Your task to perform on an android device: turn off location history Image 0: 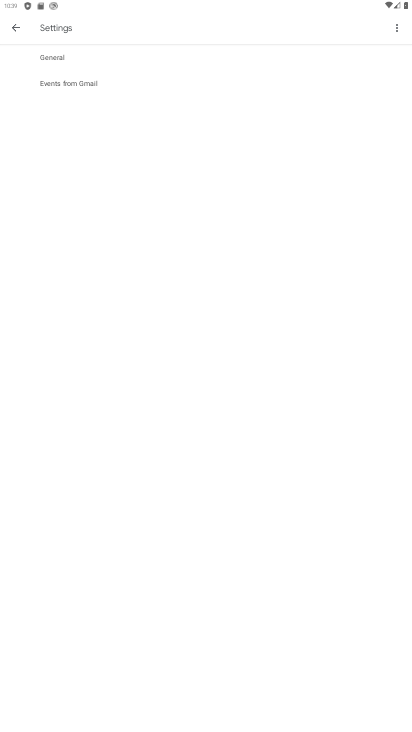
Step 0: press home button
Your task to perform on an android device: turn off location history Image 1: 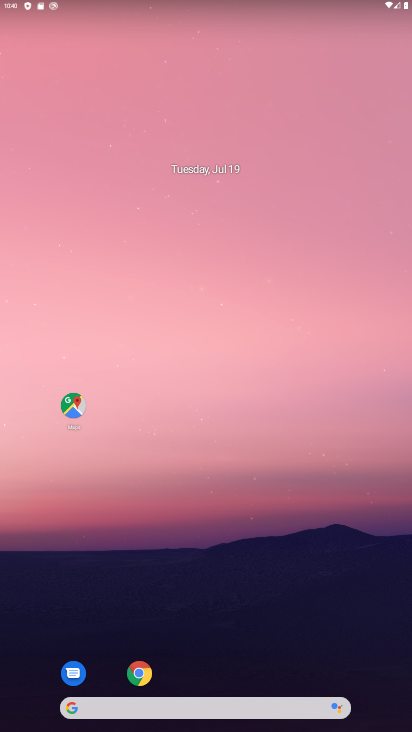
Step 1: drag from (214, 677) to (260, 28)
Your task to perform on an android device: turn off location history Image 2: 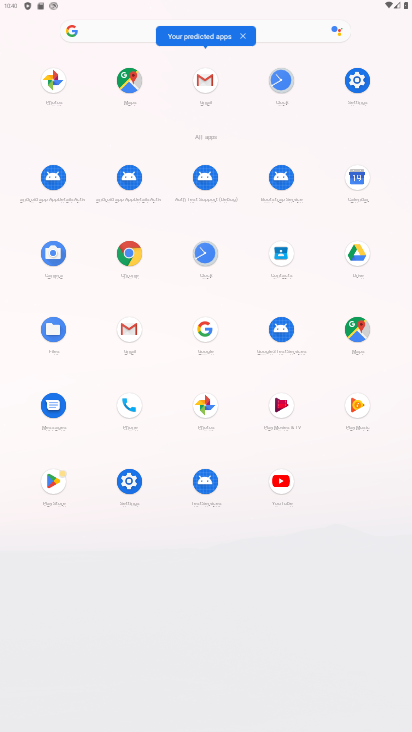
Step 2: click (128, 482)
Your task to perform on an android device: turn off location history Image 3: 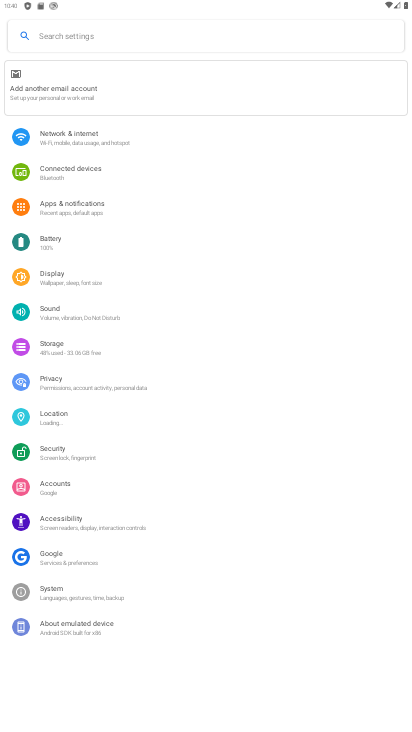
Step 3: click (75, 418)
Your task to perform on an android device: turn off location history Image 4: 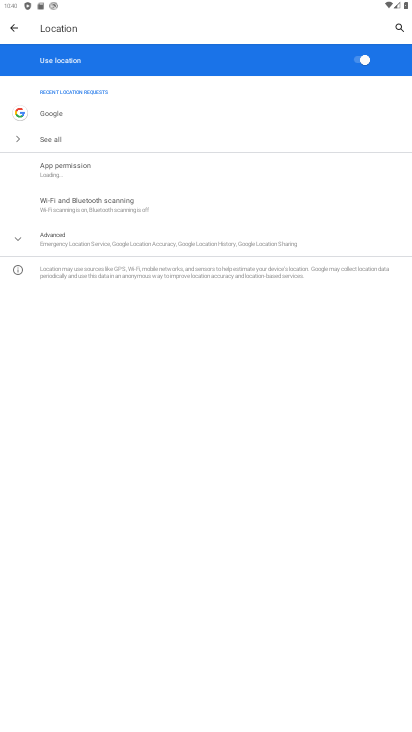
Step 4: click (69, 236)
Your task to perform on an android device: turn off location history Image 5: 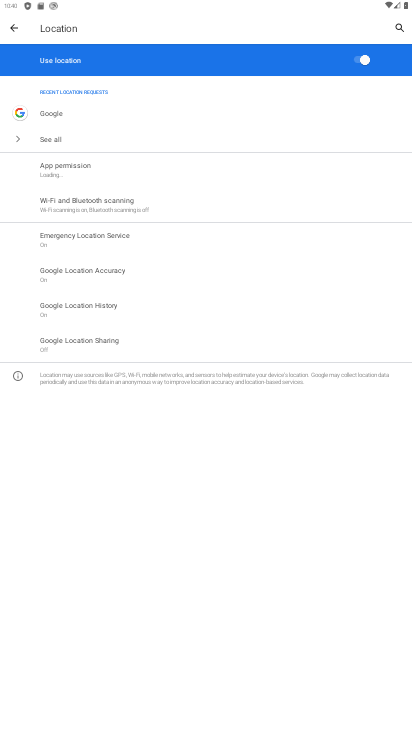
Step 5: click (95, 303)
Your task to perform on an android device: turn off location history Image 6: 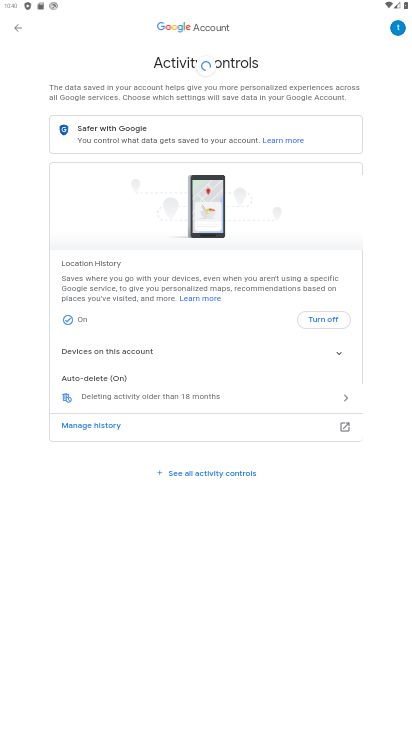
Step 6: click (319, 315)
Your task to perform on an android device: turn off location history Image 7: 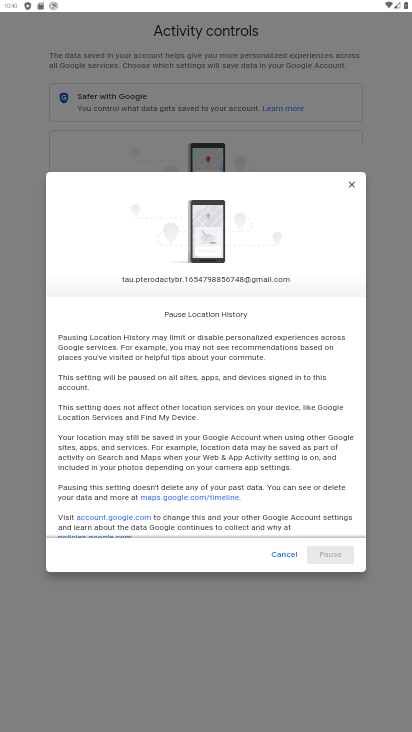
Step 7: drag from (331, 495) to (328, 175)
Your task to perform on an android device: turn off location history Image 8: 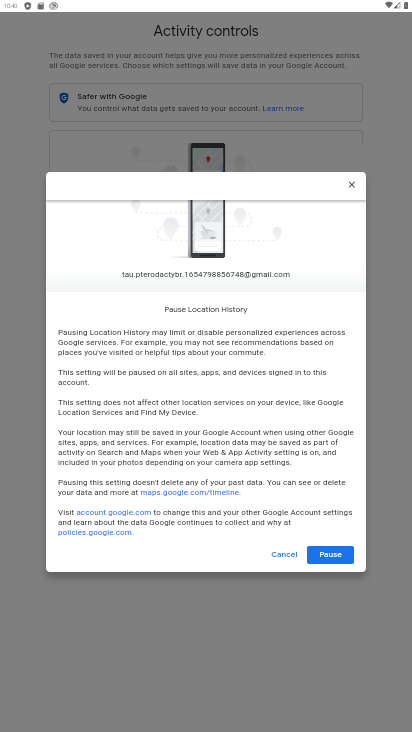
Step 8: click (331, 557)
Your task to perform on an android device: turn off location history Image 9: 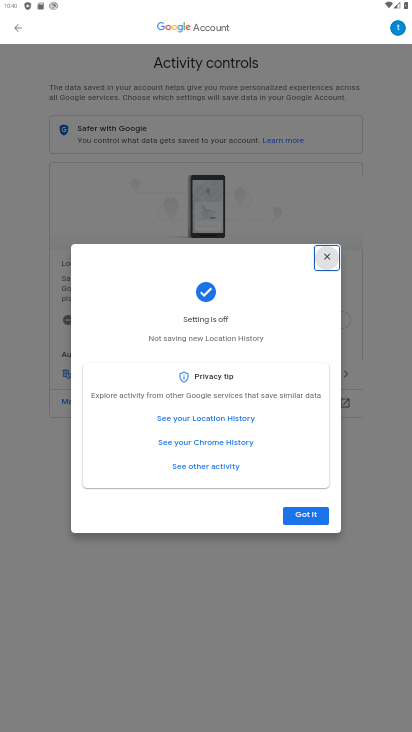
Step 9: click (305, 528)
Your task to perform on an android device: turn off location history Image 10: 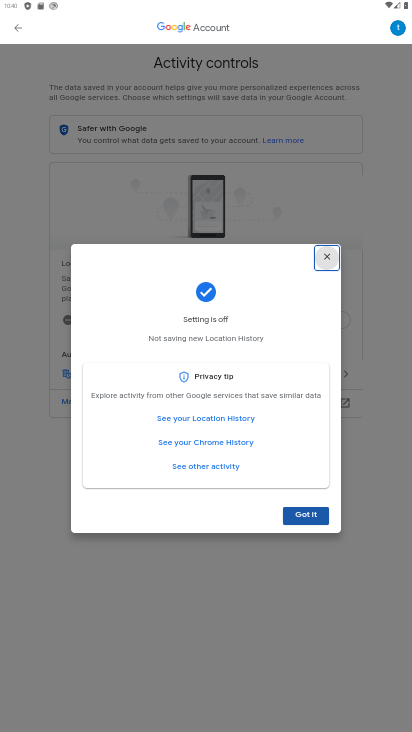
Step 10: click (309, 515)
Your task to perform on an android device: turn off location history Image 11: 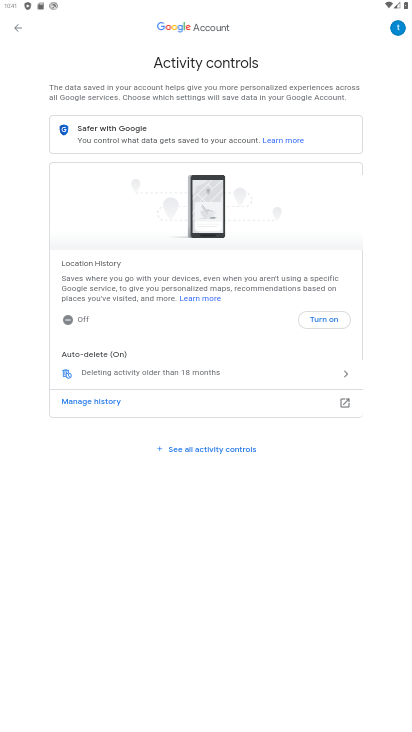
Step 11: task complete